Your task to perform on an android device: Show me popular games on the Play Store Image 0: 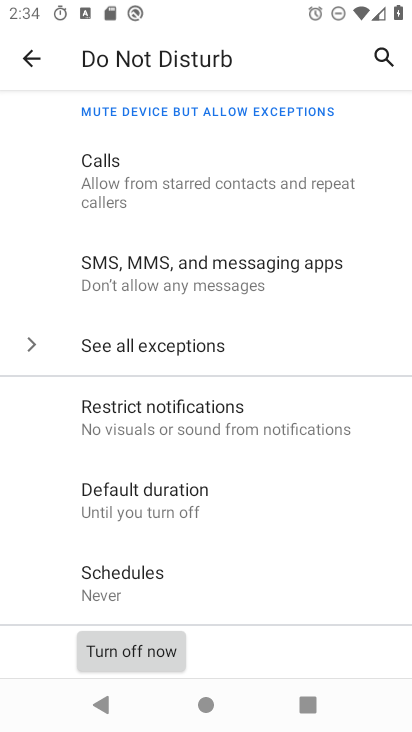
Step 0: press home button
Your task to perform on an android device: Show me popular games on the Play Store Image 1: 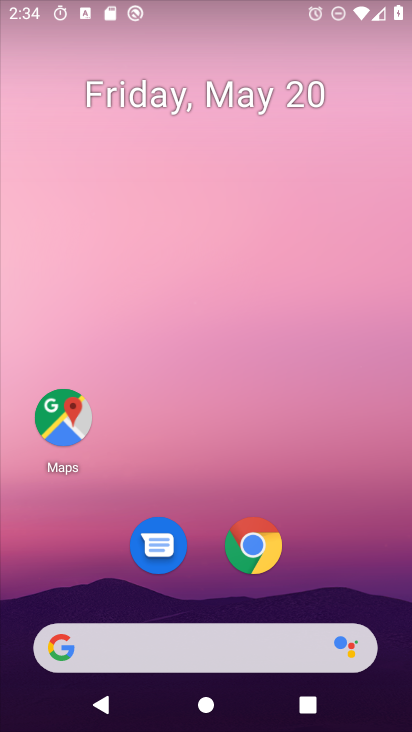
Step 1: drag from (310, 528) to (297, 15)
Your task to perform on an android device: Show me popular games on the Play Store Image 2: 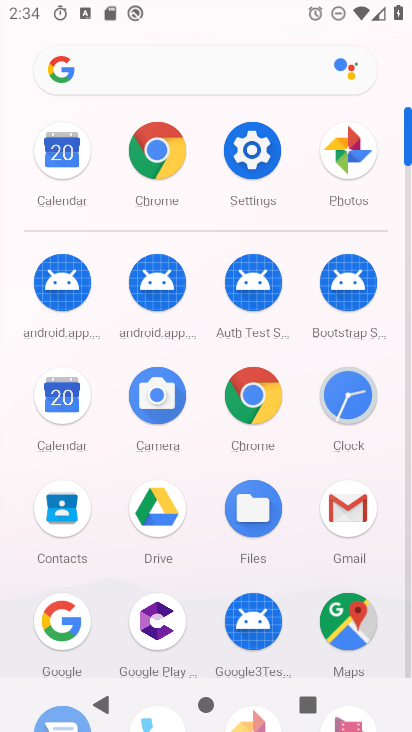
Step 2: drag from (290, 556) to (292, 59)
Your task to perform on an android device: Show me popular games on the Play Store Image 3: 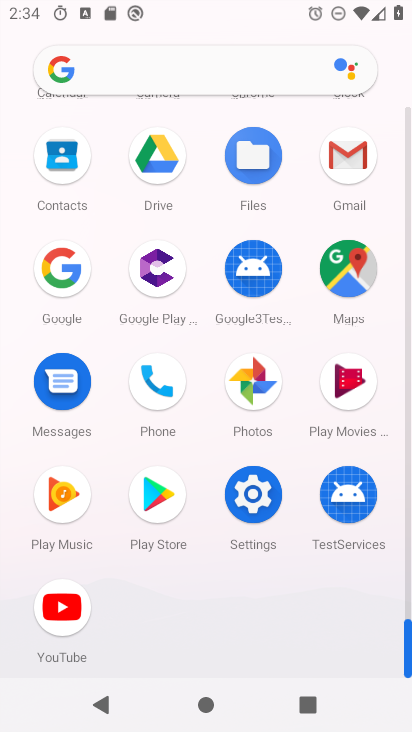
Step 3: click (151, 513)
Your task to perform on an android device: Show me popular games on the Play Store Image 4: 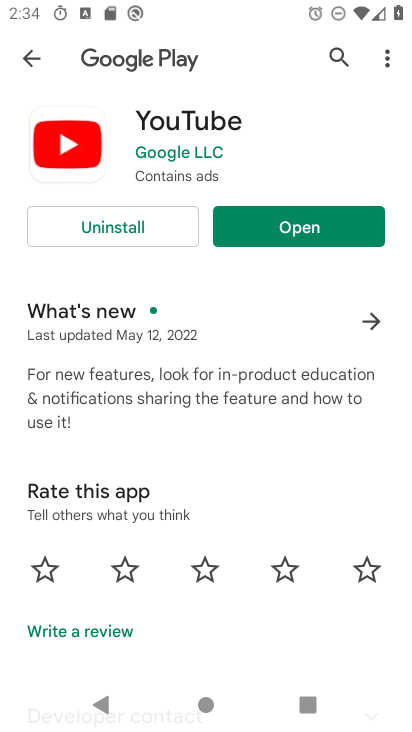
Step 4: press back button
Your task to perform on an android device: Show me popular games on the Play Store Image 5: 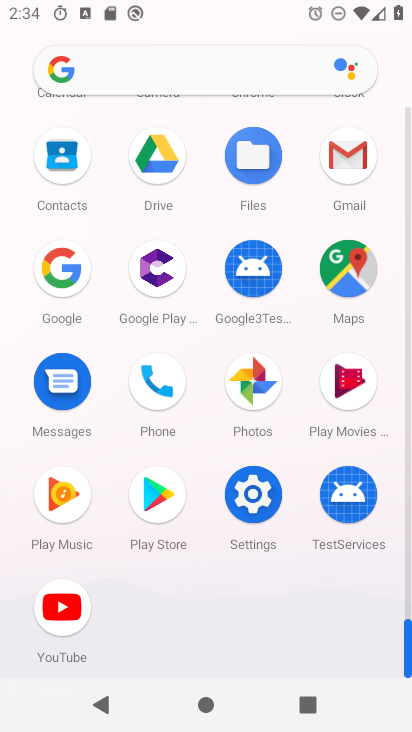
Step 5: click (147, 516)
Your task to perform on an android device: Show me popular games on the Play Store Image 6: 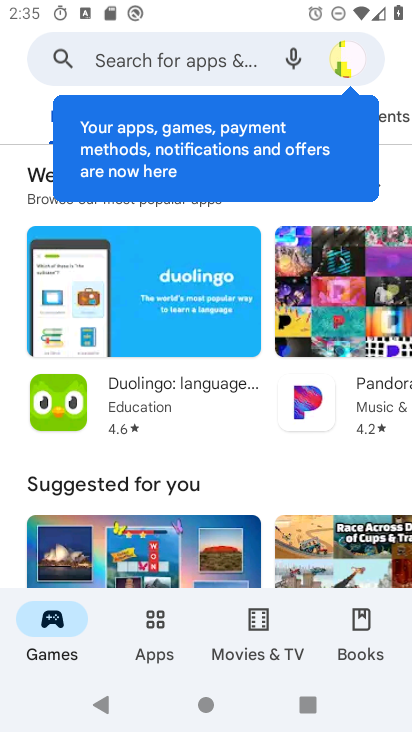
Step 6: drag from (338, 478) to (363, 606)
Your task to perform on an android device: Show me popular games on the Play Store Image 7: 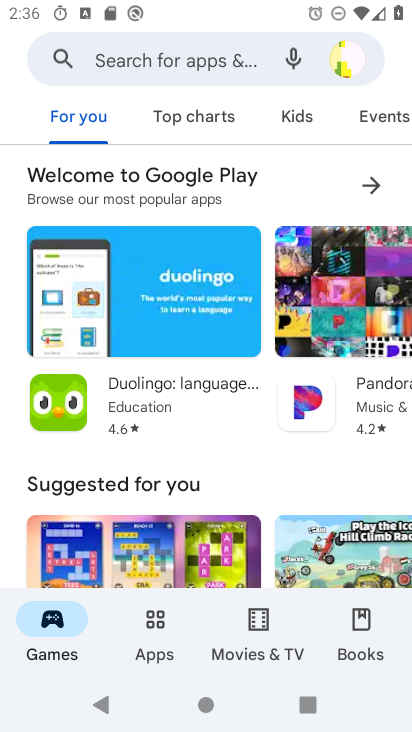
Step 7: drag from (254, 486) to (296, 110)
Your task to perform on an android device: Show me popular games on the Play Store Image 8: 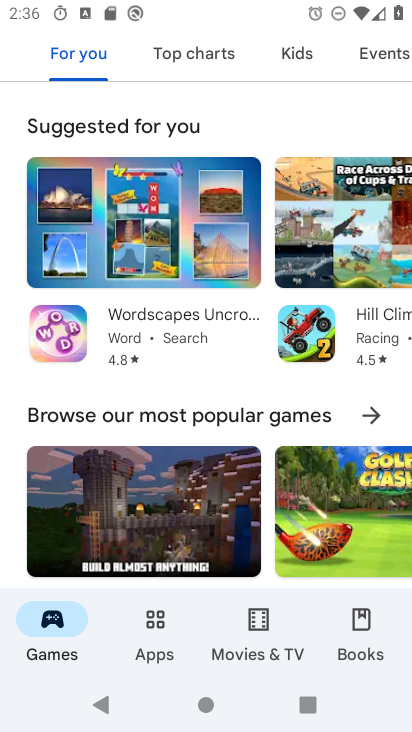
Step 8: click (371, 415)
Your task to perform on an android device: Show me popular games on the Play Store Image 9: 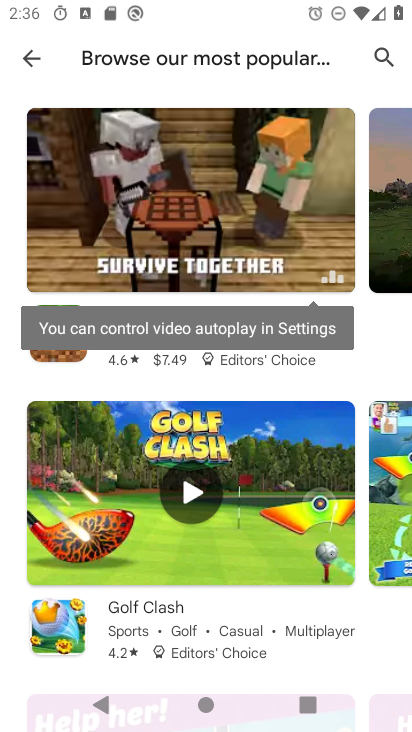
Step 9: task complete